Your task to perform on an android device: Open Youtube and go to "Your channel" Image 0: 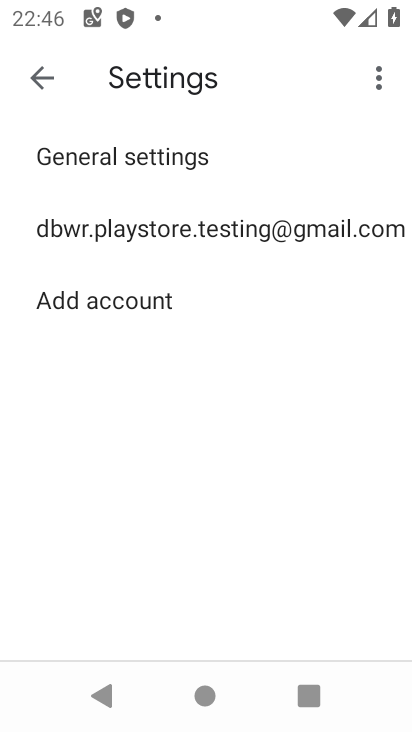
Step 0: press home button
Your task to perform on an android device: Open Youtube and go to "Your channel" Image 1: 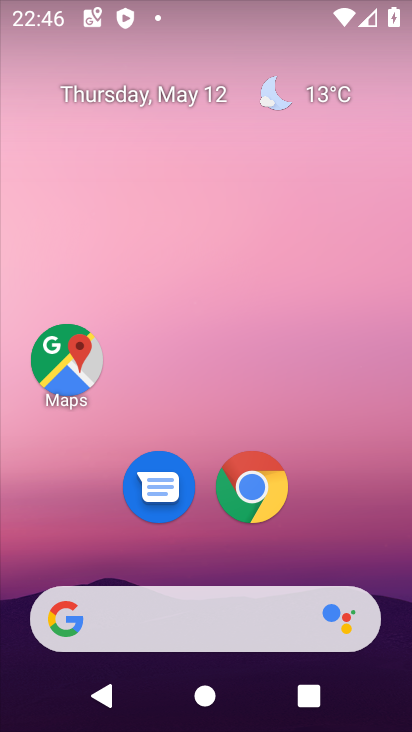
Step 1: drag from (260, 554) to (313, 42)
Your task to perform on an android device: Open Youtube and go to "Your channel" Image 2: 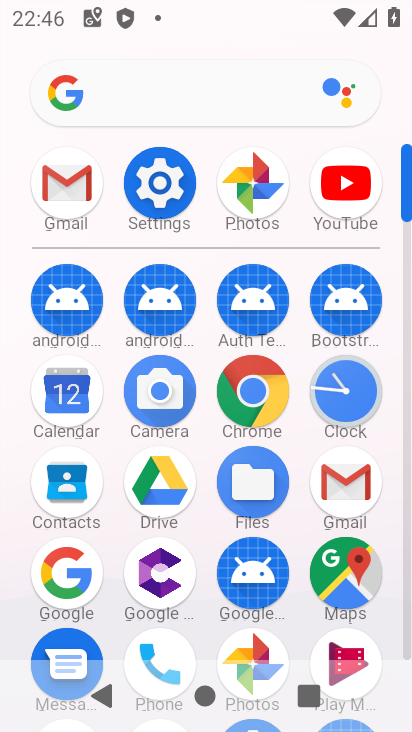
Step 2: click (341, 194)
Your task to perform on an android device: Open Youtube and go to "Your channel" Image 3: 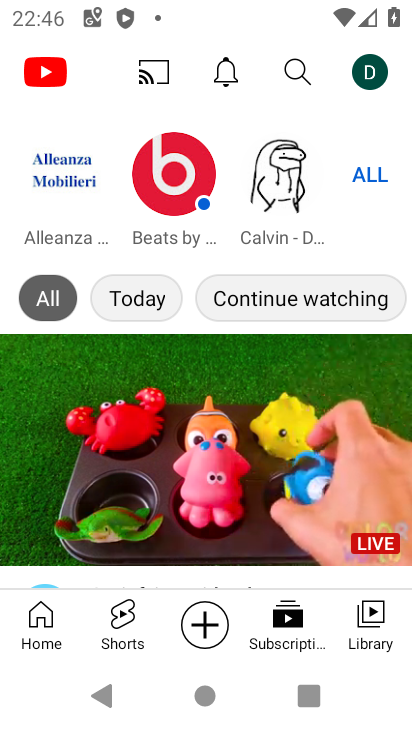
Step 3: click (303, 74)
Your task to perform on an android device: Open Youtube and go to "Your channel" Image 4: 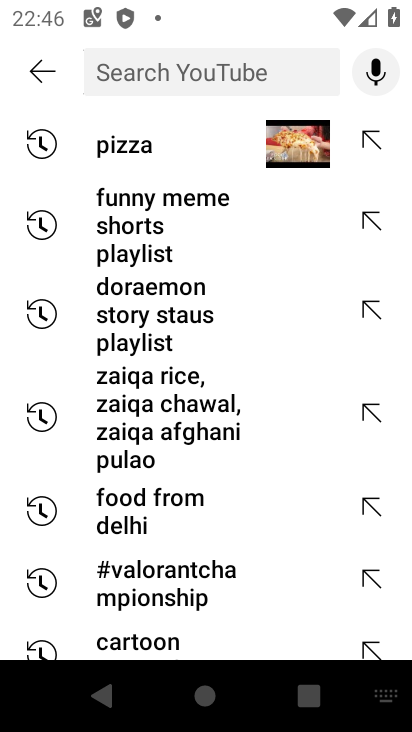
Step 4: type "your channel"
Your task to perform on an android device: Open Youtube and go to "Your channel" Image 5: 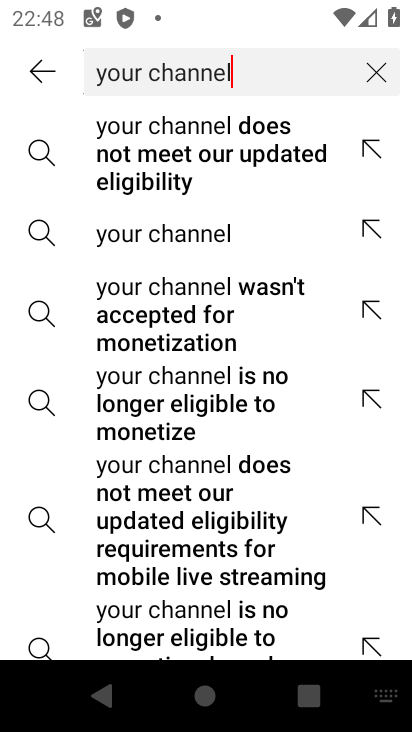
Step 5: click (282, 231)
Your task to perform on an android device: Open Youtube and go to "Your channel" Image 6: 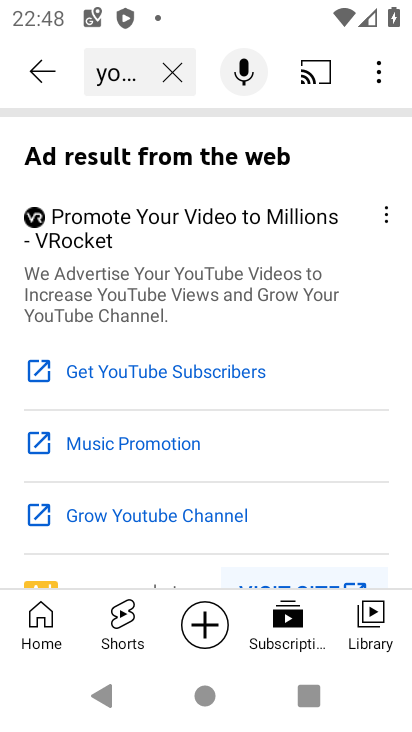
Step 6: task complete